Your task to perform on an android device: turn off wifi Image 0: 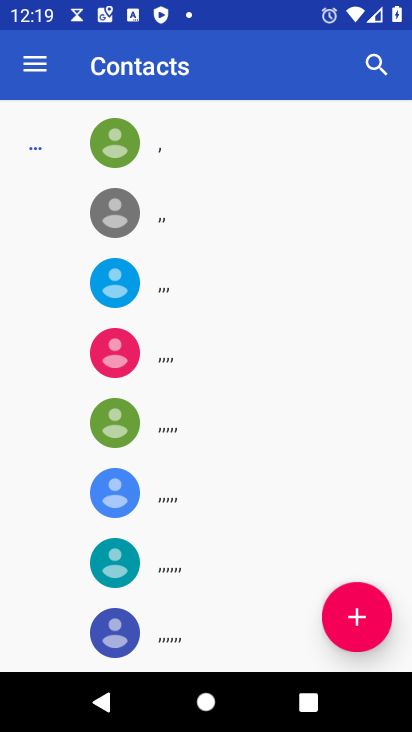
Step 0: press home button
Your task to perform on an android device: turn off wifi Image 1: 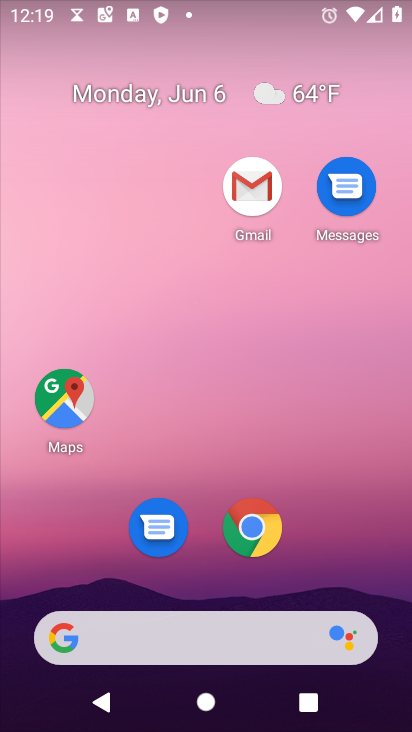
Step 1: drag from (312, 570) to (317, 88)
Your task to perform on an android device: turn off wifi Image 2: 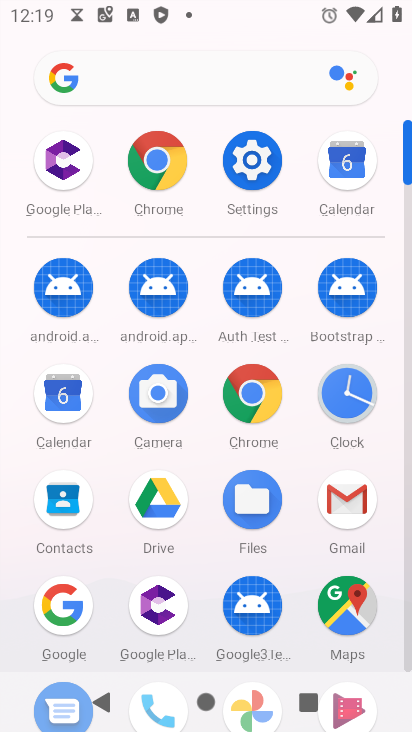
Step 2: click (256, 155)
Your task to perform on an android device: turn off wifi Image 3: 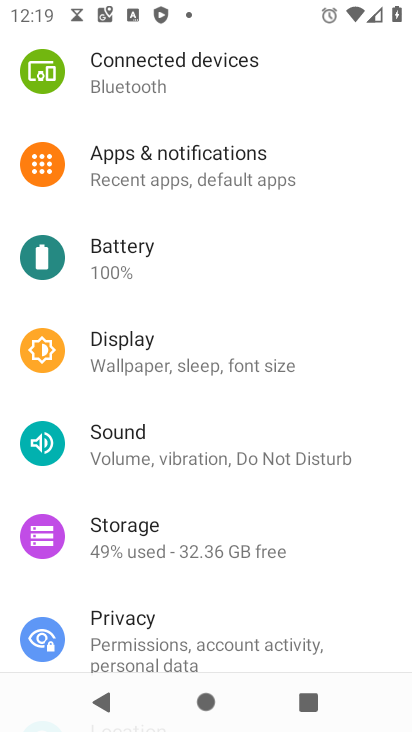
Step 3: drag from (293, 173) to (259, 515)
Your task to perform on an android device: turn off wifi Image 4: 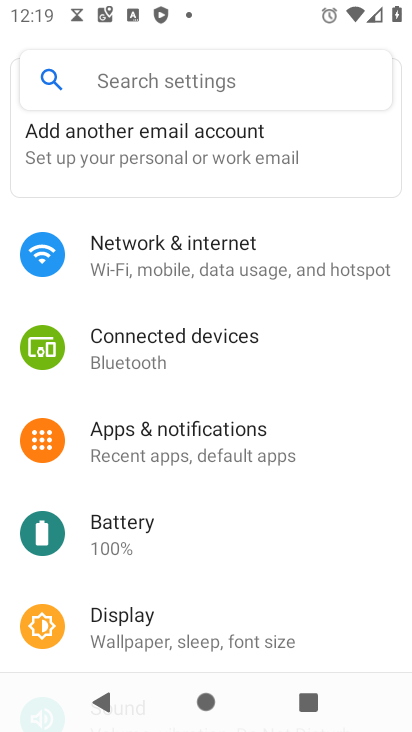
Step 4: click (220, 268)
Your task to perform on an android device: turn off wifi Image 5: 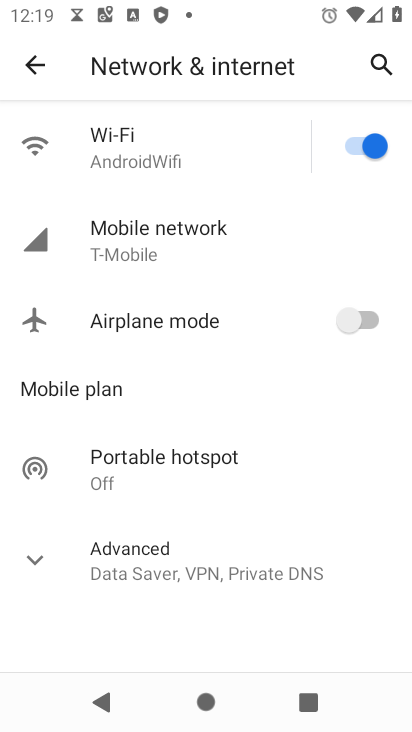
Step 5: click (354, 150)
Your task to perform on an android device: turn off wifi Image 6: 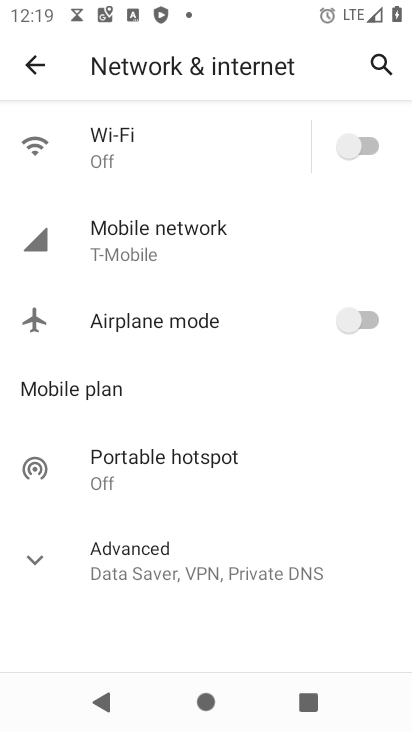
Step 6: task complete